Your task to perform on an android device: Is it going to rain tomorrow? Image 0: 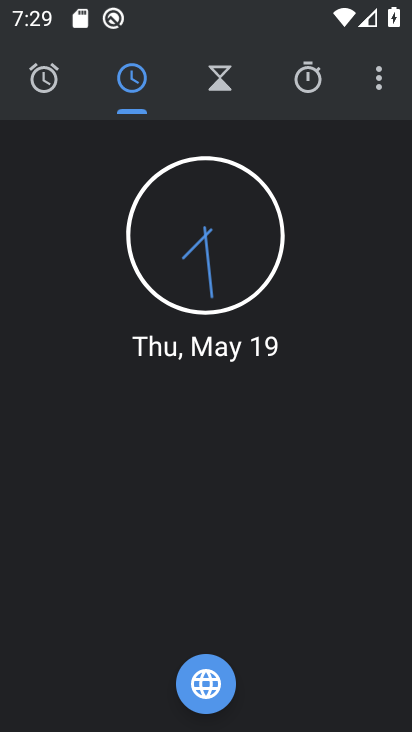
Step 0: press home button
Your task to perform on an android device: Is it going to rain tomorrow? Image 1: 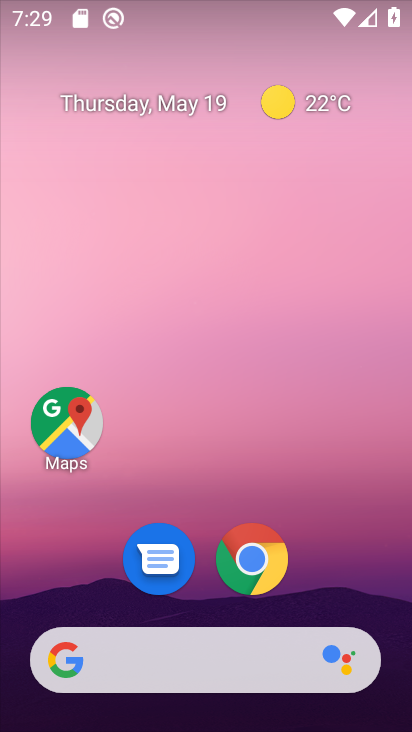
Step 1: click (151, 655)
Your task to perform on an android device: Is it going to rain tomorrow? Image 2: 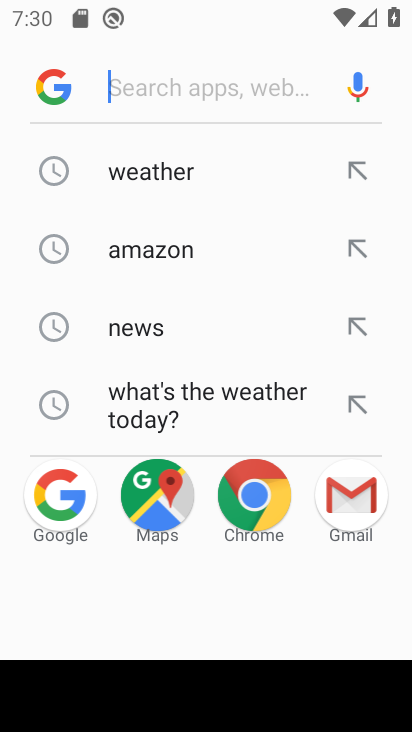
Step 2: type "is it going to rain tomorrow"
Your task to perform on an android device: Is it going to rain tomorrow? Image 3: 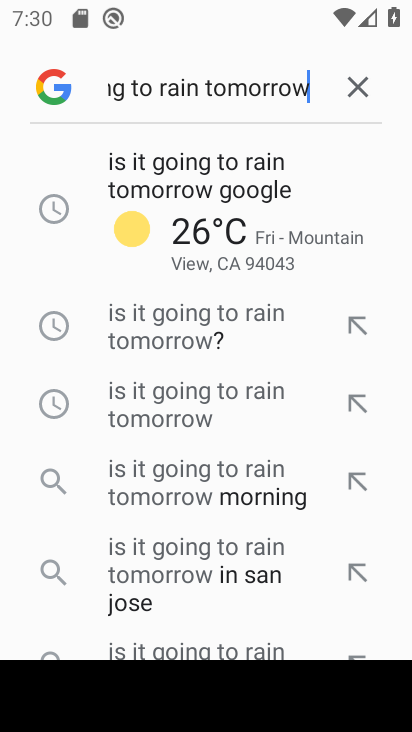
Step 3: click (155, 348)
Your task to perform on an android device: Is it going to rain tomorrow? Image 4: 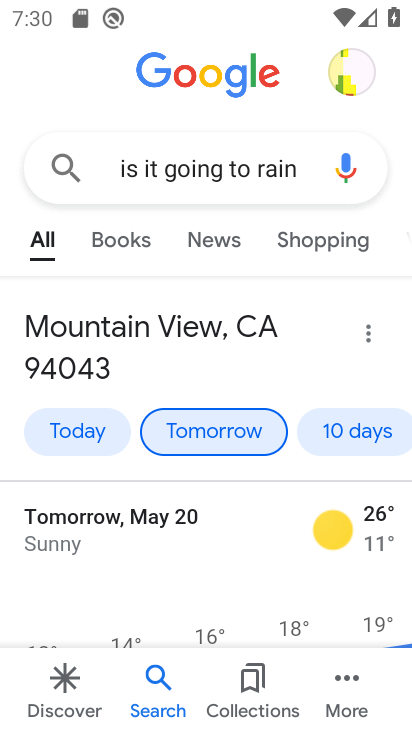
Step 4: task complete